Your task to perform on an android device: Add acer predator to the cart on walmart.com Image 0: 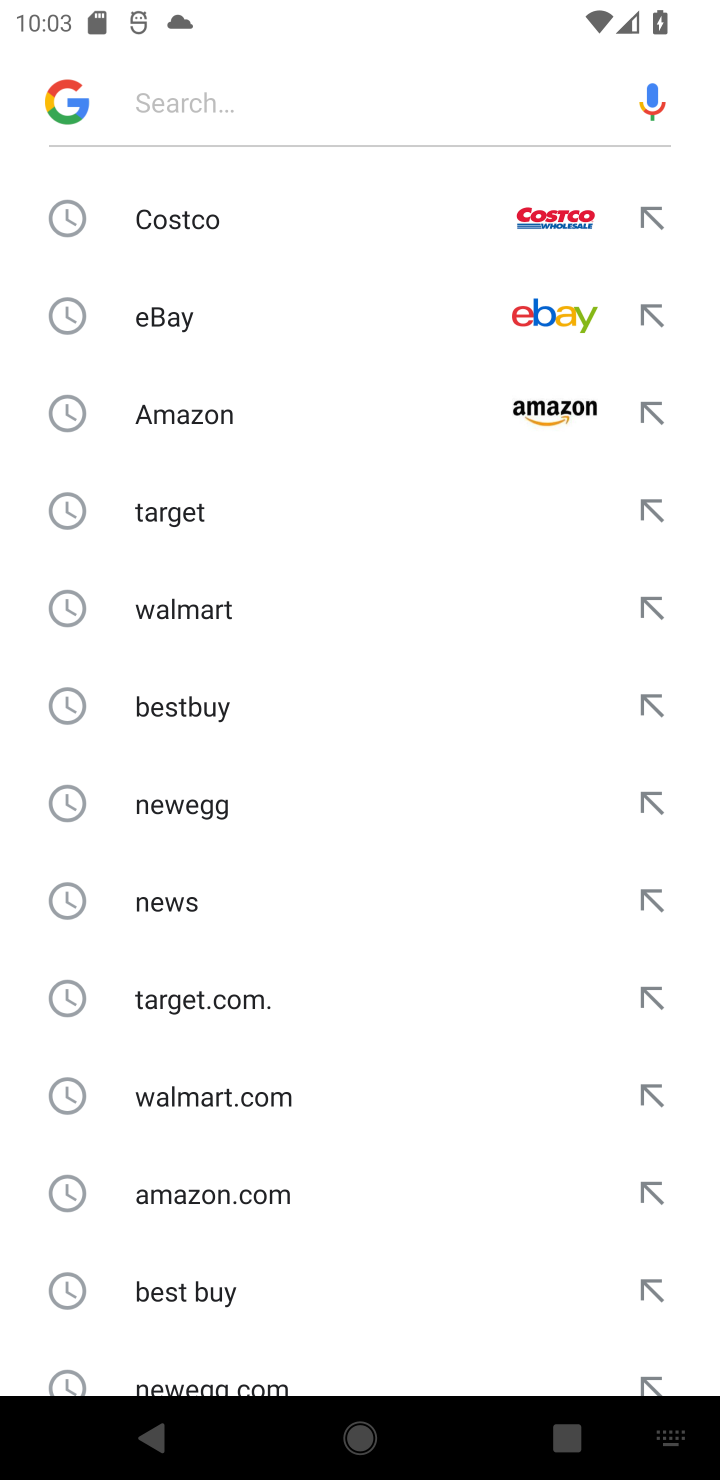
Step 0: press home button
Your task to perform on an android device: Add acer predator to the cart on walmart.com Image 1: 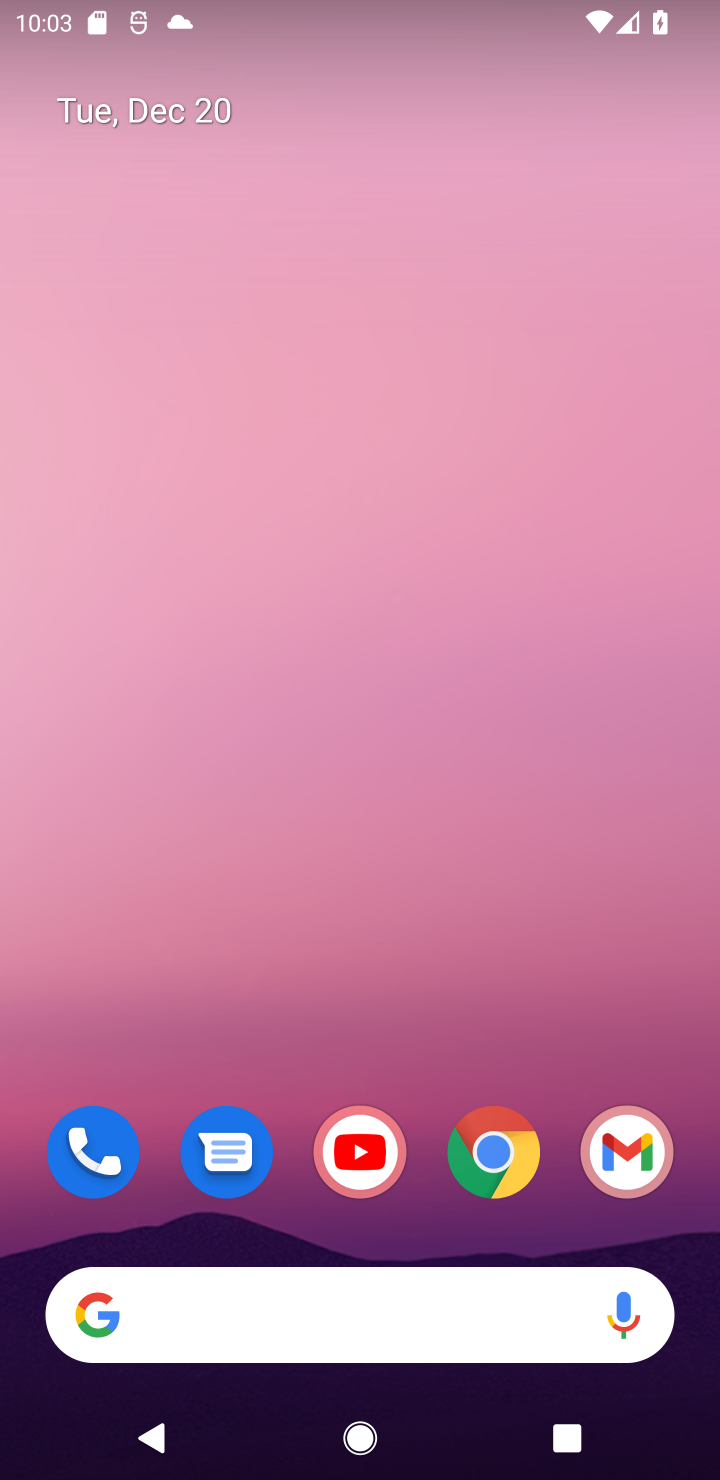
Step 1: click (496, 1173)
Your task to perform on an android device: Add acer predator to the cart on walmart.com Image 2: 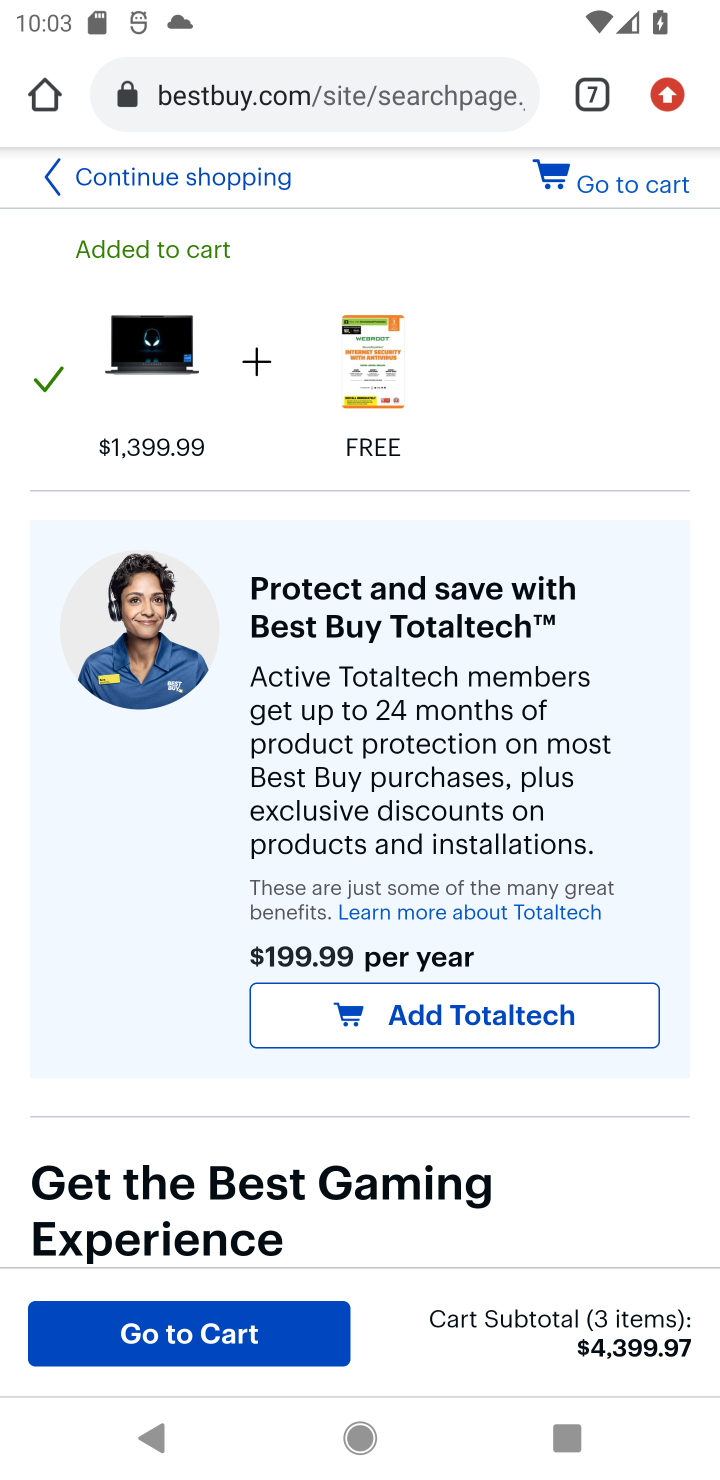
Step 2: click (591, 102)
Your task to perform on an android device: Add acer predator to the cart on walmart.com Image 3: 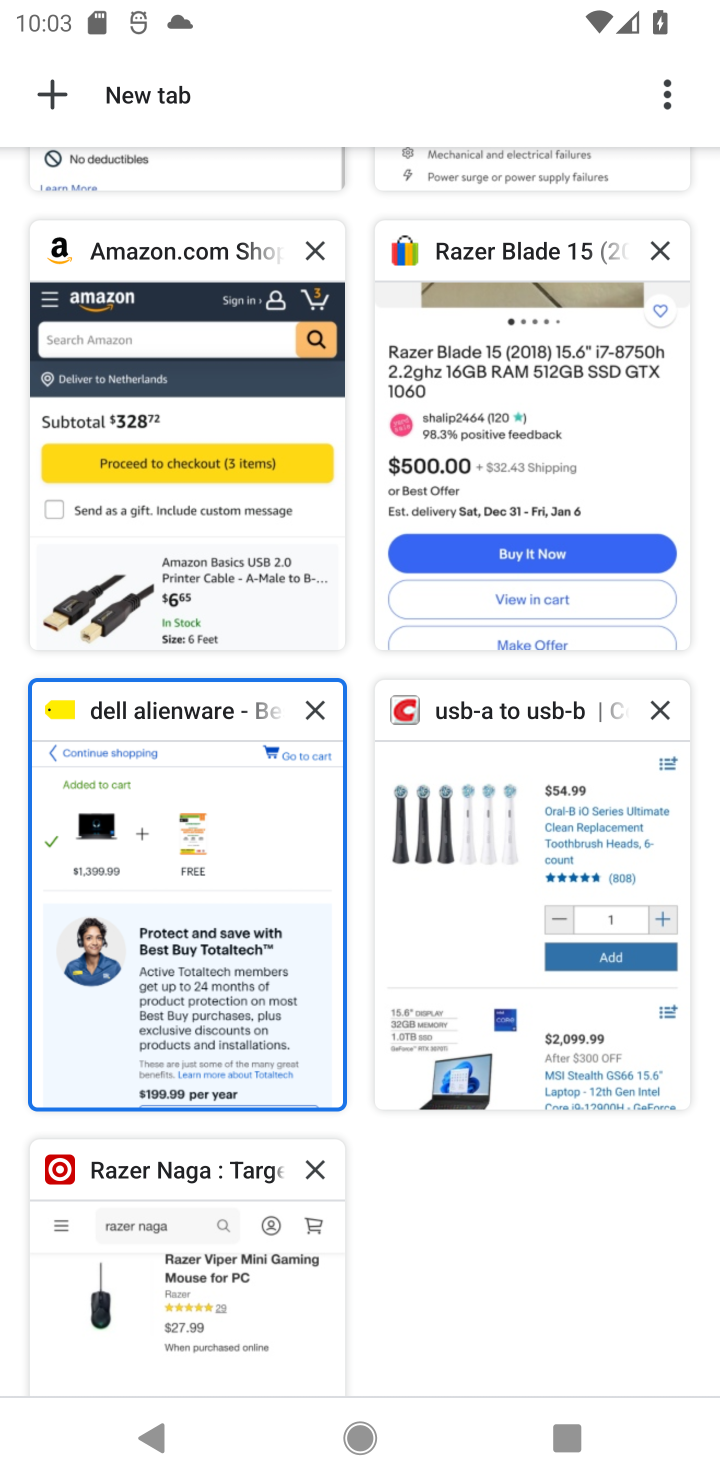
Step 3: drag from (534, 201) to (515, 1118)
Your task to perform on an android device: Add acer predator to the cart on walmart.com Image 4: 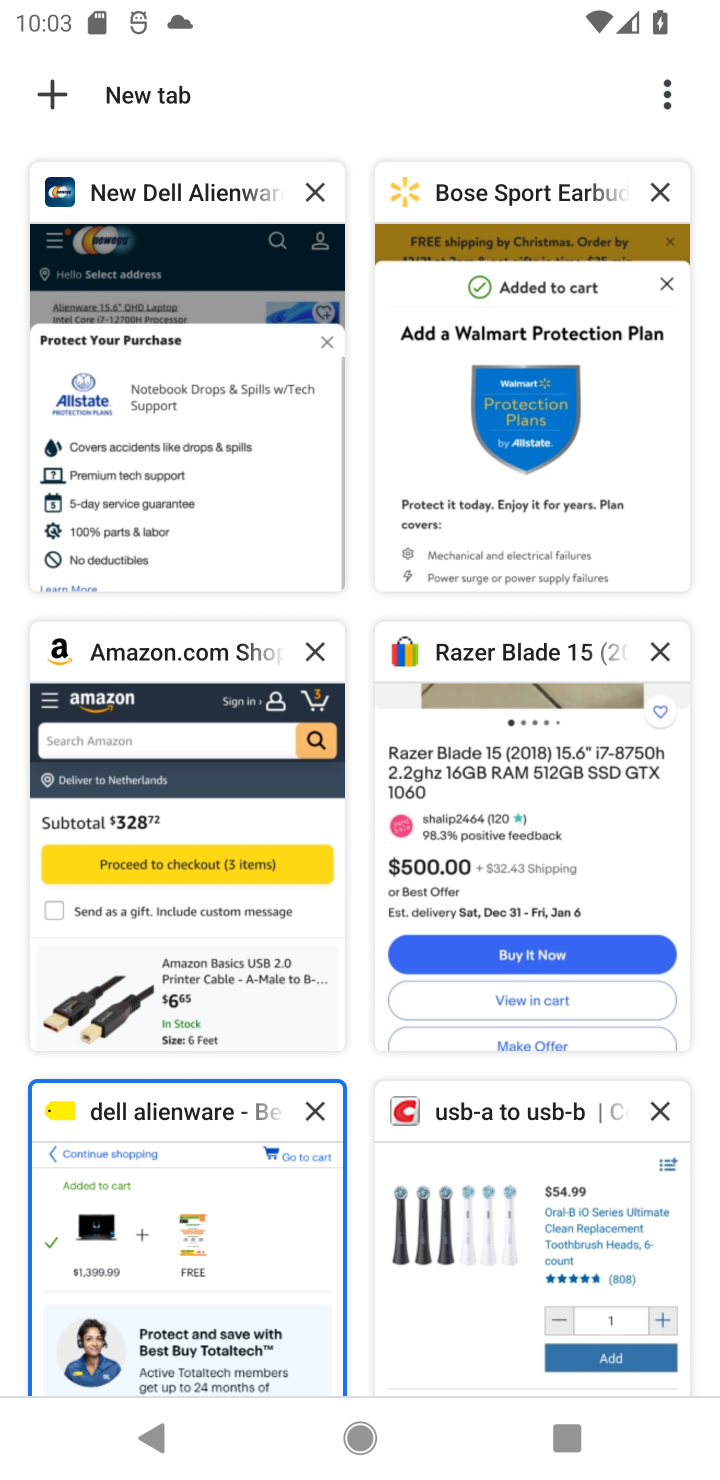
Step 4: click (534, 391)
Your task to perform on an android device: Add acer predator to the cart on walmart.com Image 5: 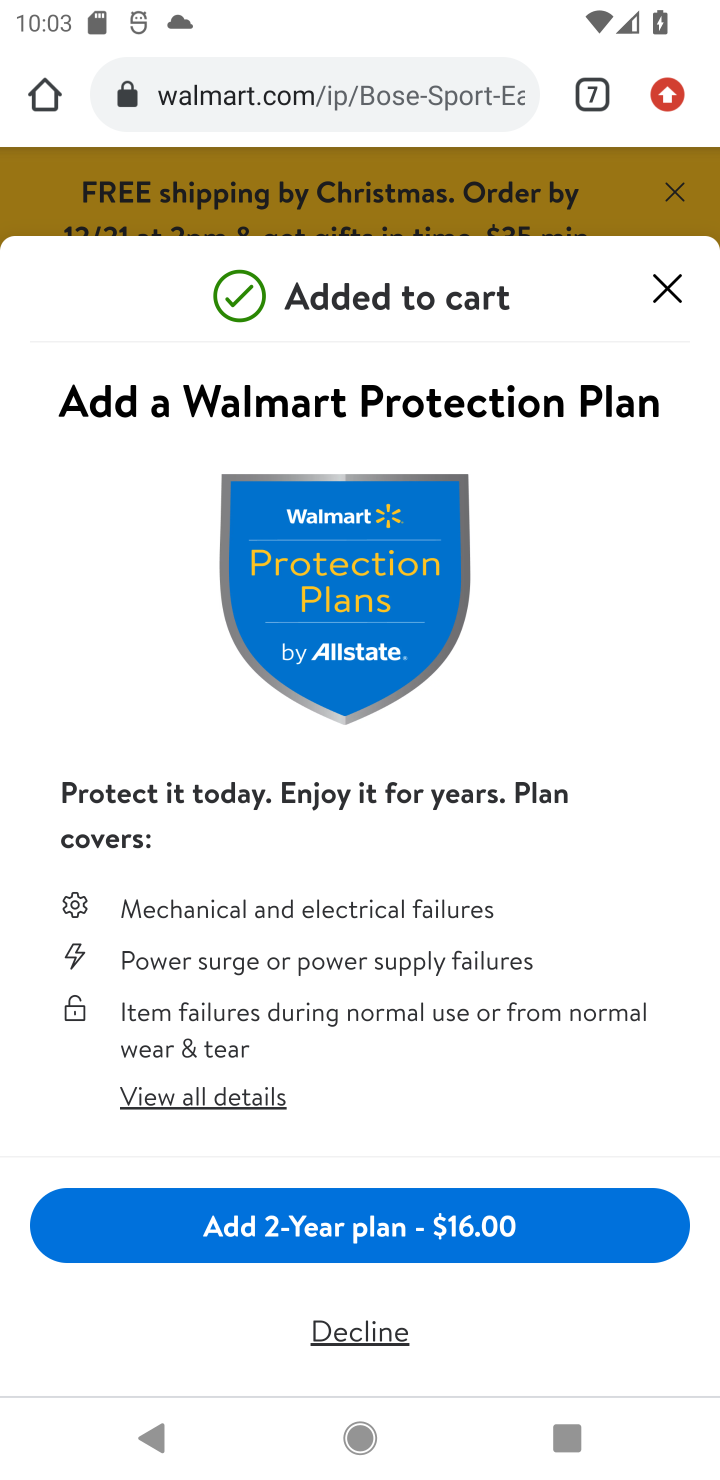
Step 5: click (663, 274)
Your task to perform on an android device: Add acer predator to the cart on walmart.com Image 6: 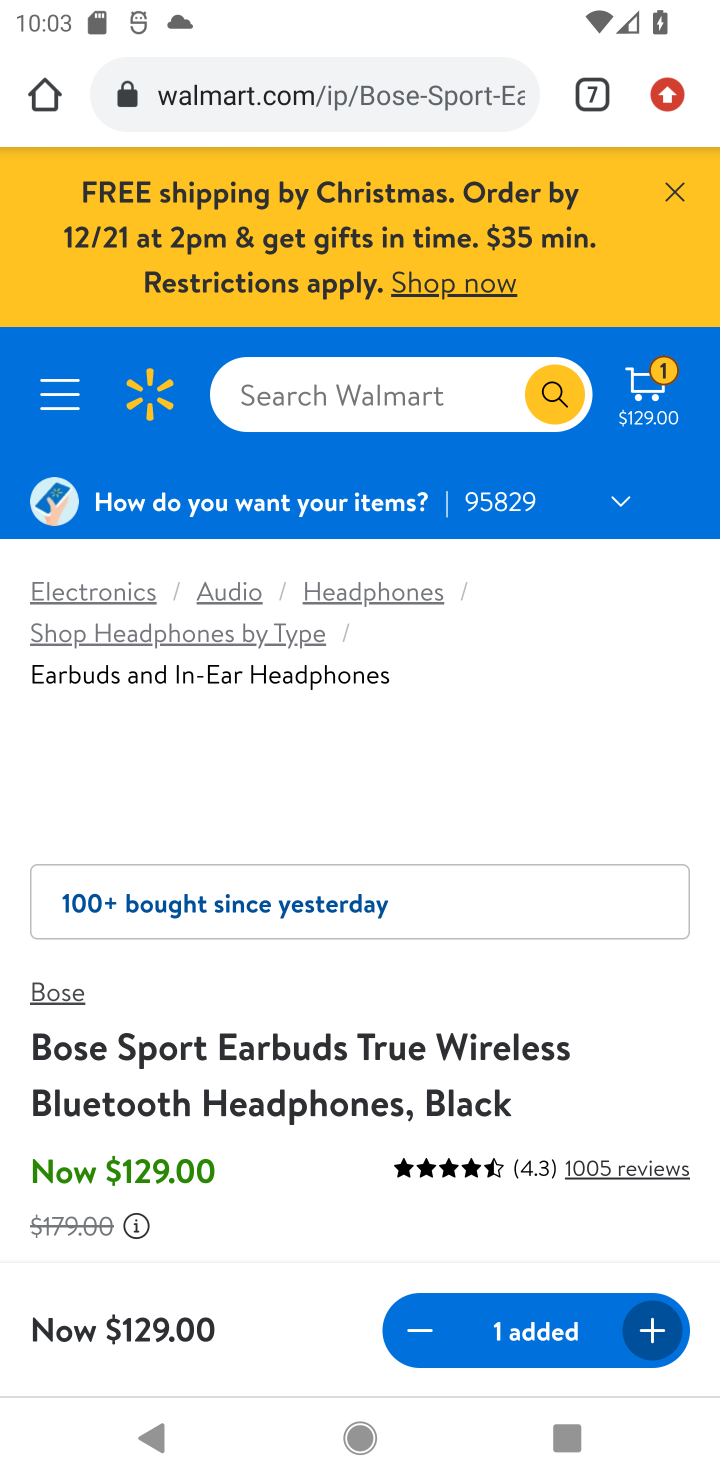
Step 6: click (666, 189)
Your task to perform on an android device: Add acer predator to the cart on walmart.com Image 7: 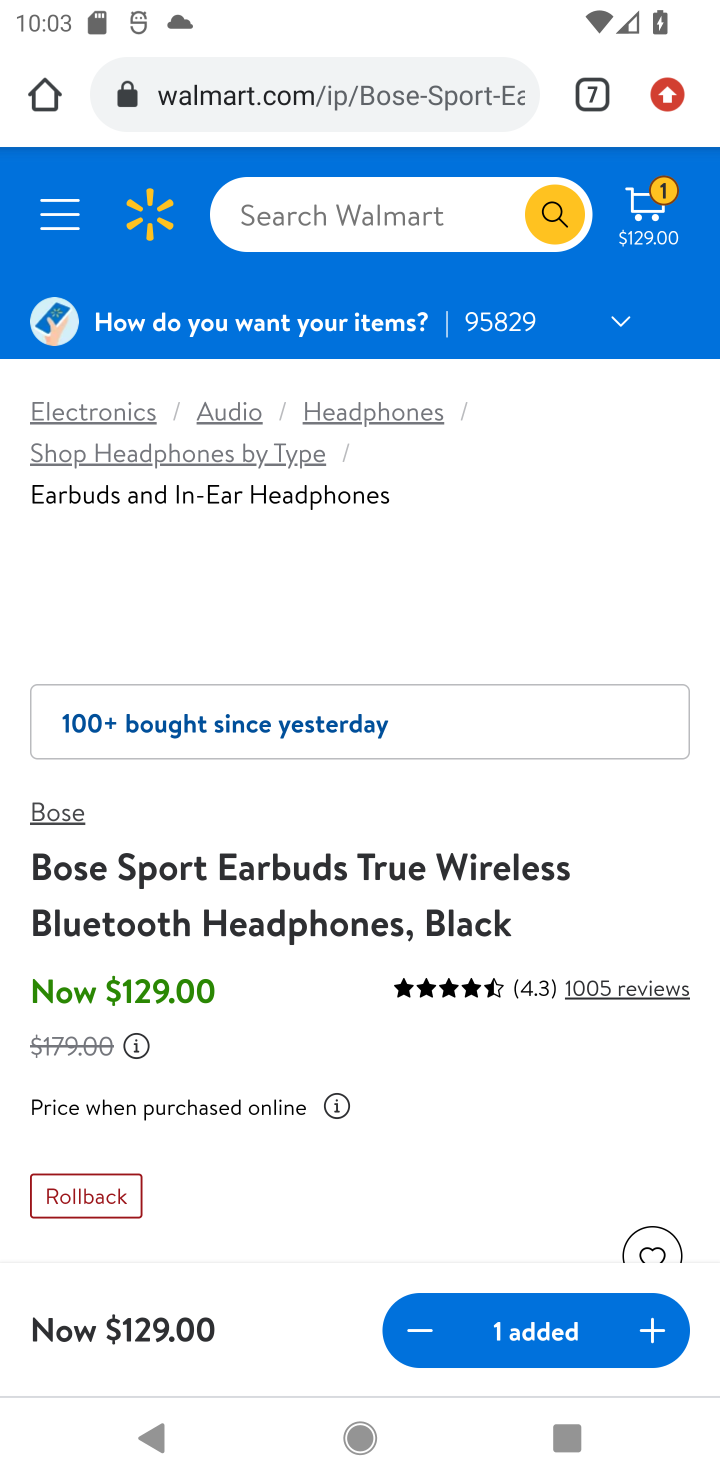
Step 7: click (316, 216)
Your task to perform on an android device: Add acer predator to the cart on walmart.com Image 8: 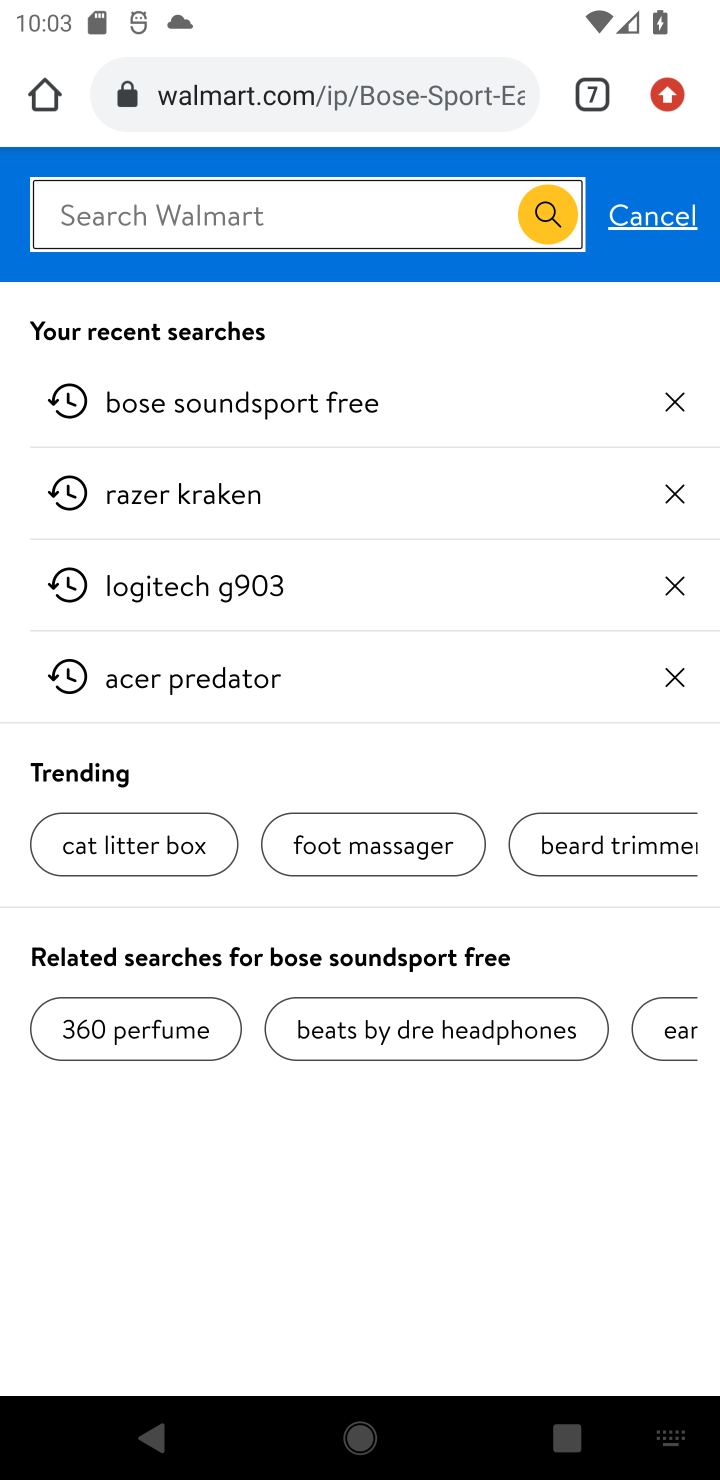
Step 8: type "acer predator"
Your task to perform on an android device: Add acer predator to the cart on walmart.com Image 9: 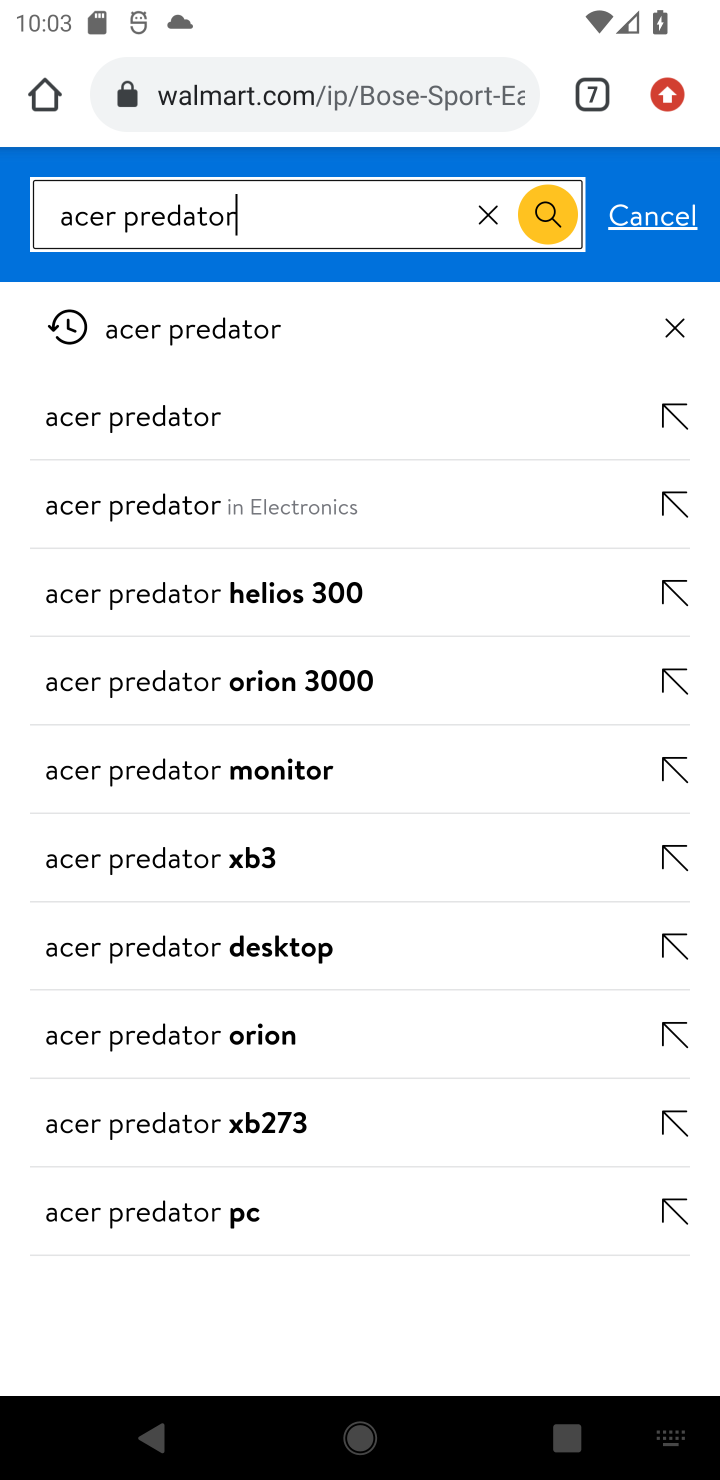
Step 9: click (185, 506)
Your task to perform on an android device: Add acer predator to the cart on walmart.com Image 10: 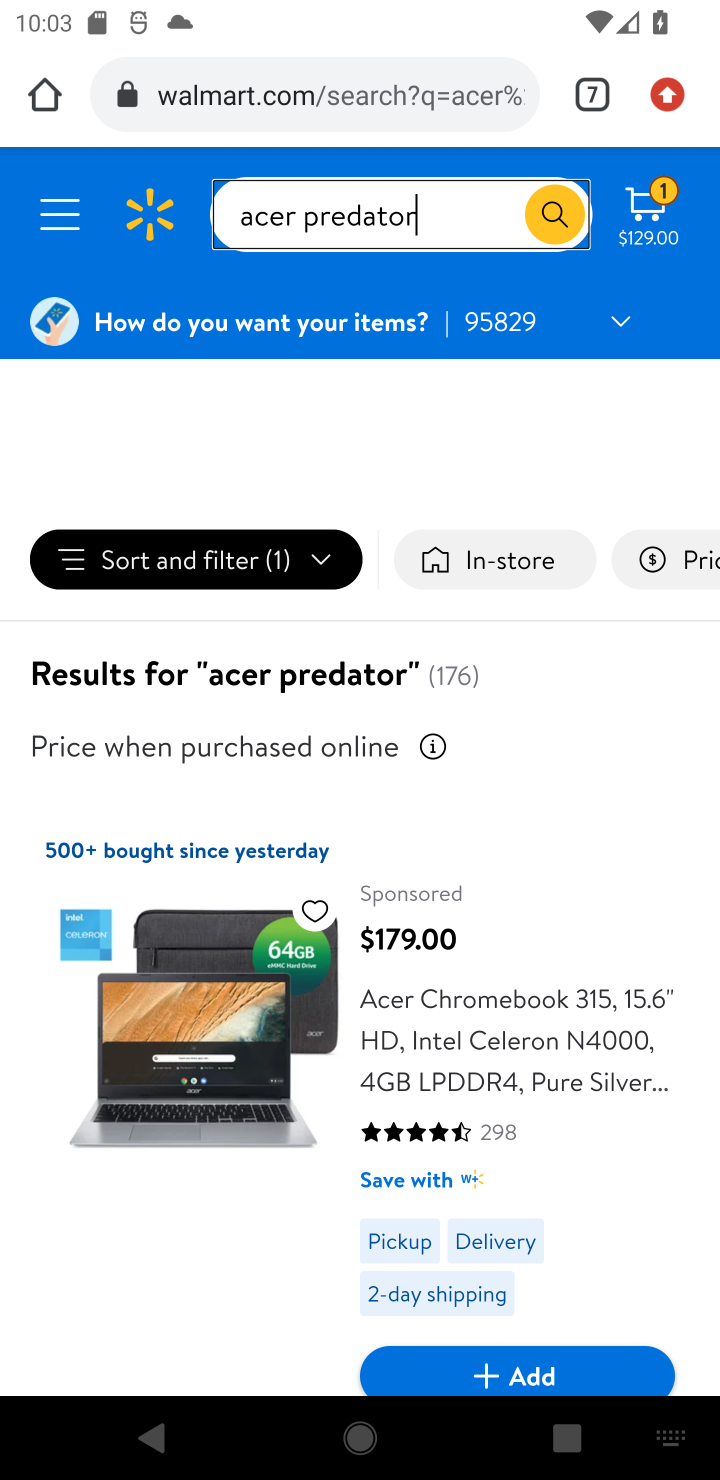
Step 10: drag from (595, 1228) to (523, 282)
Your task to perform on an android device: Add acer predator to the cart on walmart.com Image 11: 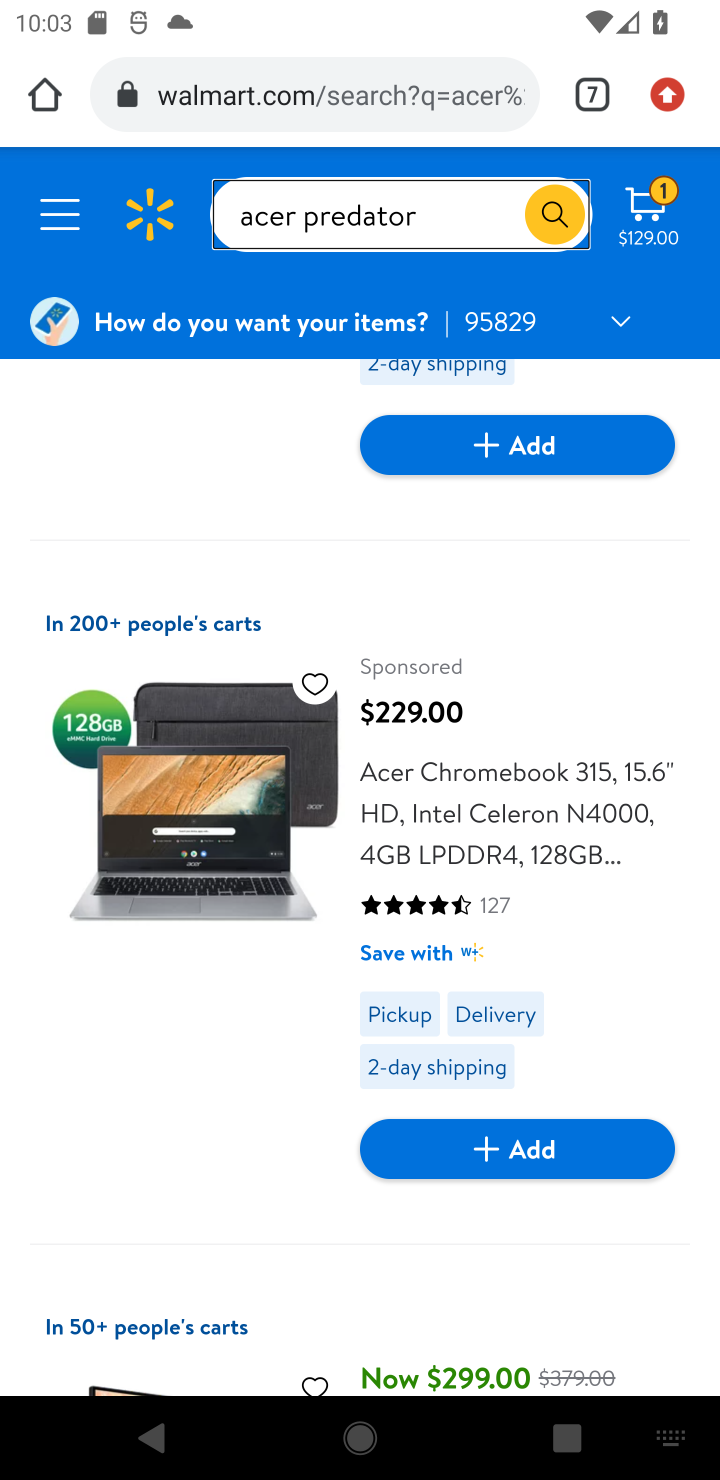
Step 11: drag from (491, 1281) to (605, 520)
Your task to perform on an android device: Add acer predator to the cart on walmart.com Image 12: 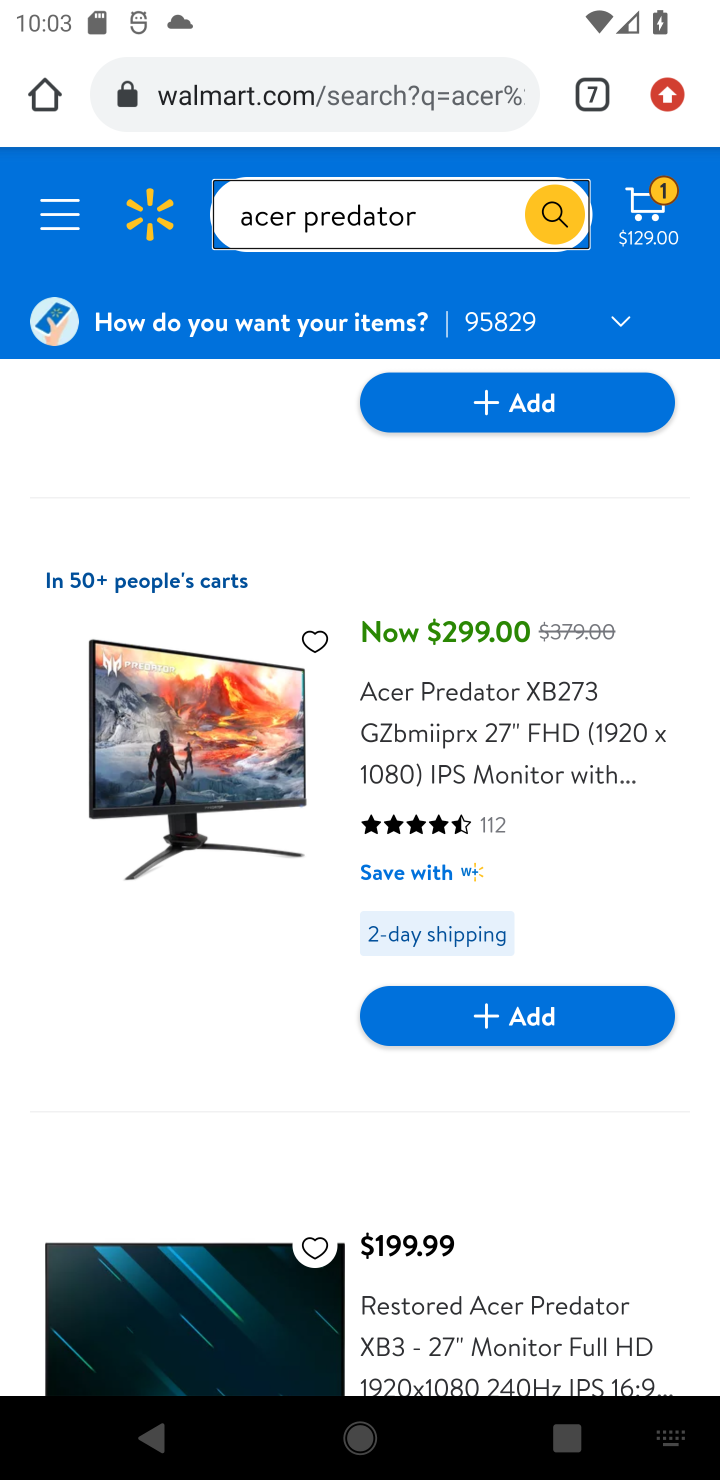
Step 12: click (531, 993)
Your task to perform on an android device: Add acer predator to the cart on walmart.com Image 13: 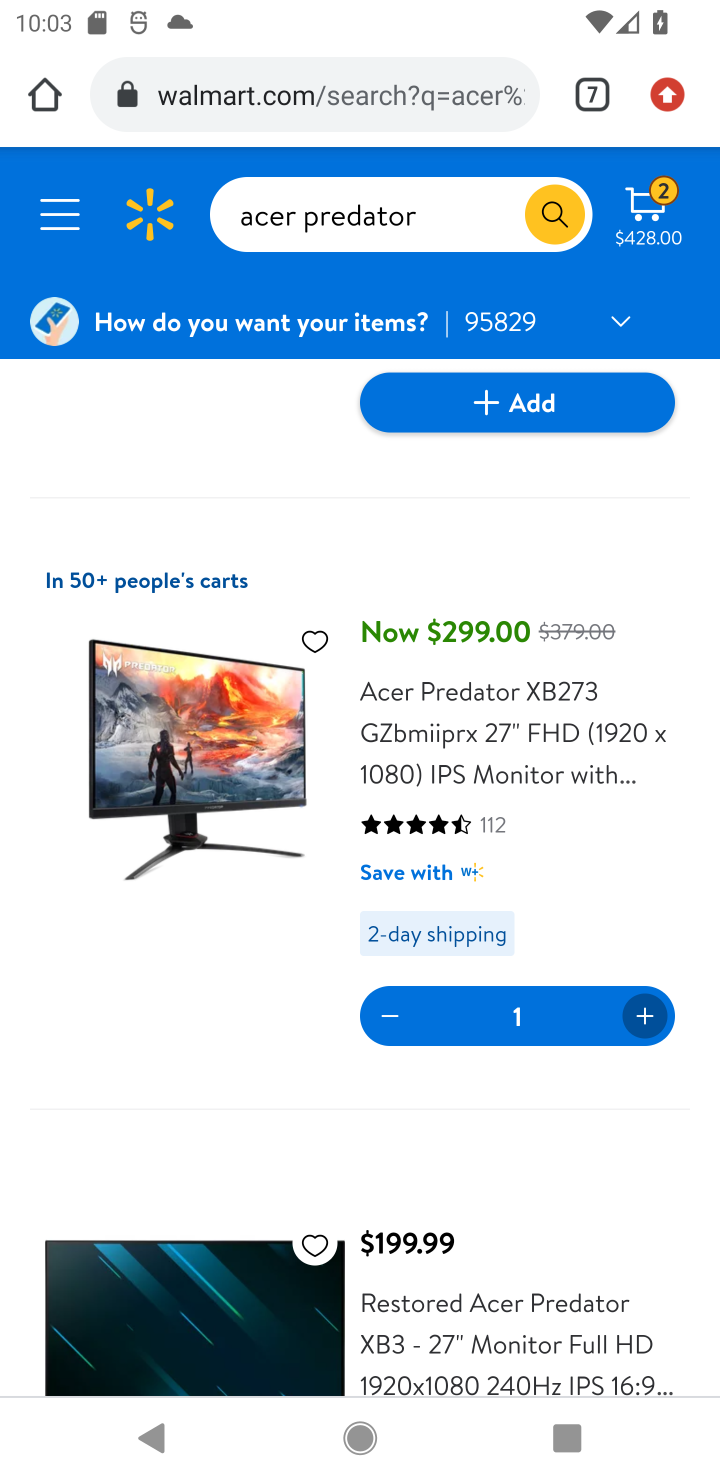
Step 13: task complete